Your task to perform on an android device: change the clock display to digital Image 0: 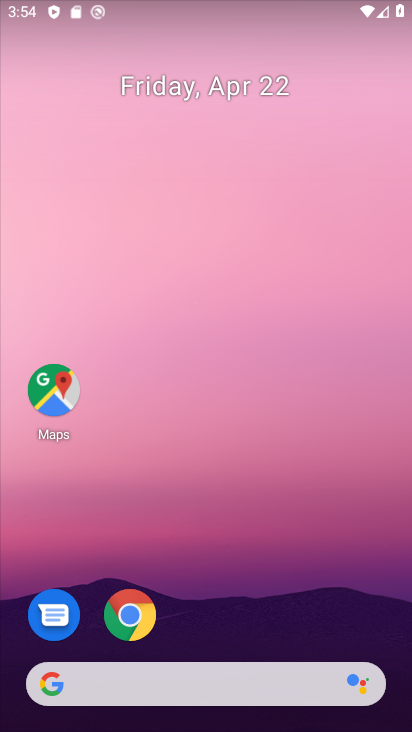
Step 0: drag from (227, 644) to (269, 166)
Your task to perform on an android device: change the clock display to digital Image 1: 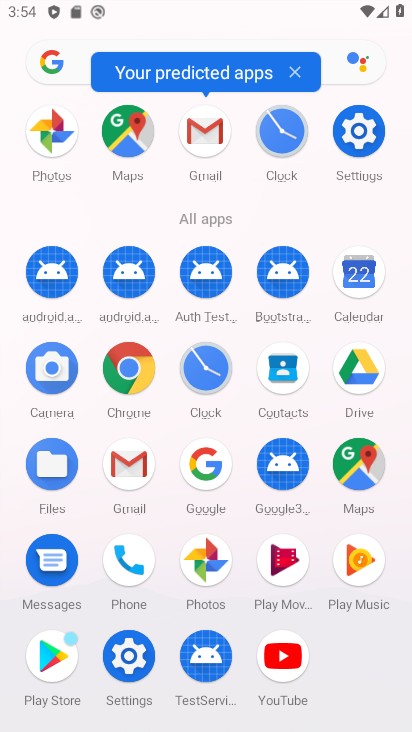
Step 1: click (294, 142)
Your task to perform on an android device: change the clock display to digital Image 2: 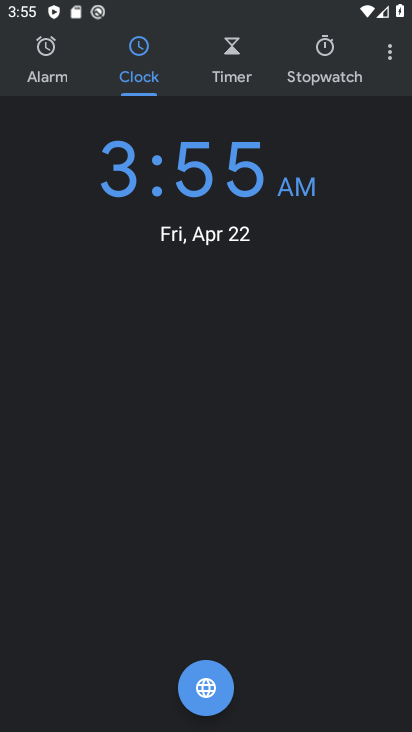
Step 2: click (389, 56)
Your task to perform on an android device: change the clock display to digital Image 3: 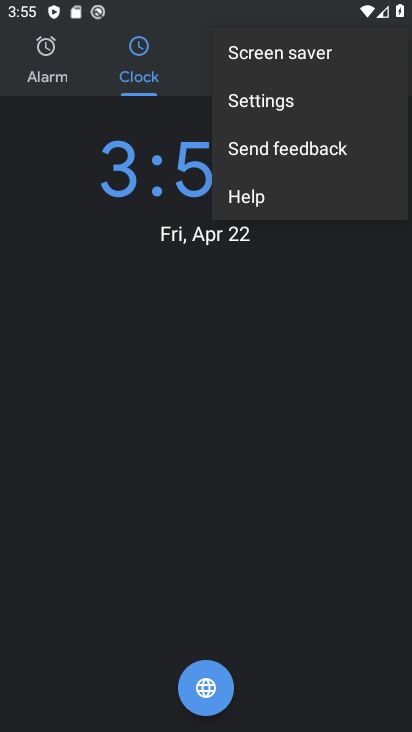
Step 3: click (241, 111)
Your task to perform on an android device: change the clock display to digital Image 4: 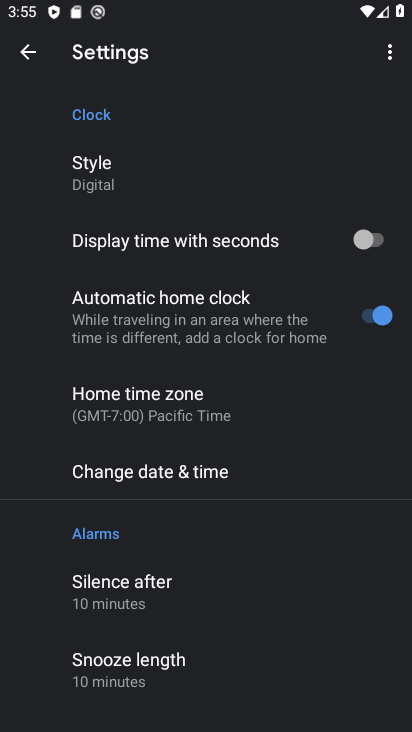
Step 4: click (122, 182)
Your task to perform on an android device: change the clock display to digital Image 5: 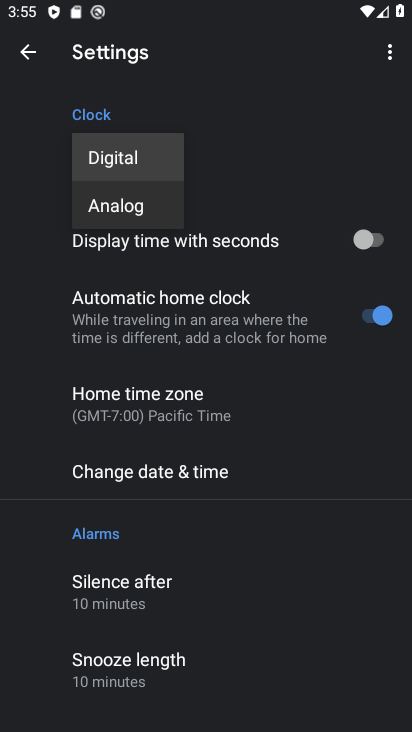
Step 5: task complete